Your task to perform on an android device: change text size in settings app Image 0: 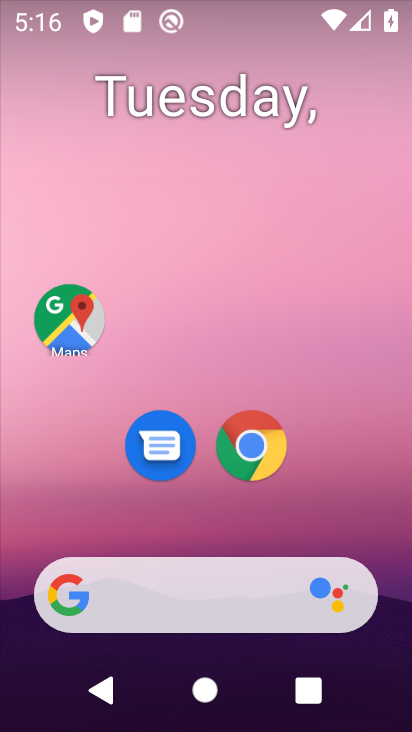
Step 0: drag from (315, 528) to (337, 5)
Your task to perform on an android device: change text size in settings app Image 1: 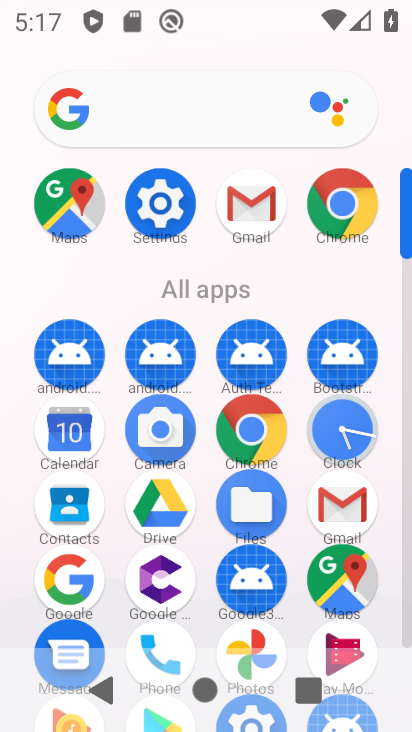
Step 1: click (158, 204)
Your task to perform on an android device: change text size in settings app Image 2: 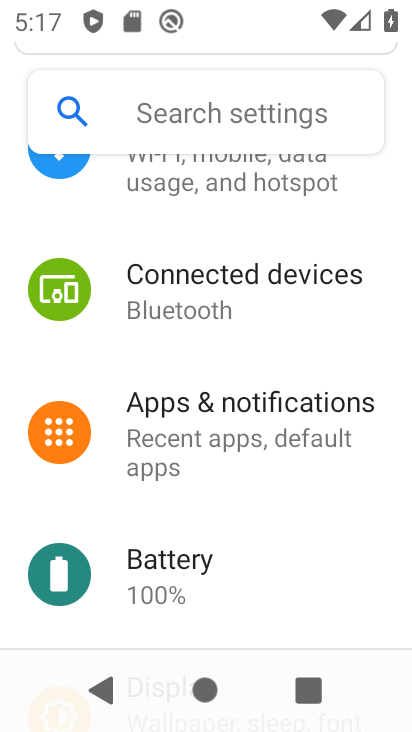
Step 2: drag from (379, 213) to (339, 546)
Your task to perform on an android device: change text size in settings app Image 3: 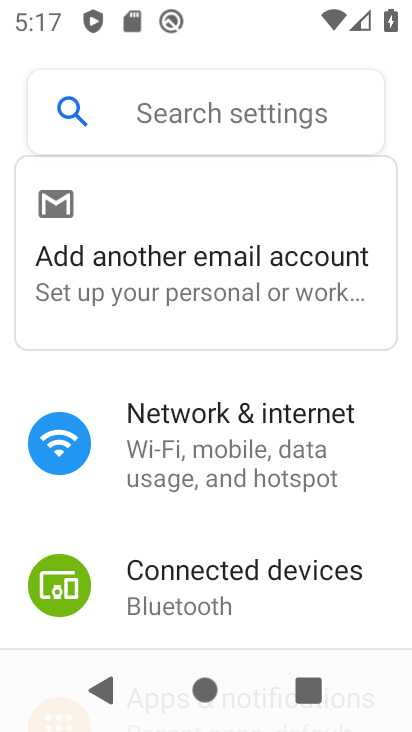
Step 3: drag from (289, 549) to (369, 247)
Your task to perform on an android device: change text size in settings app Image 4: 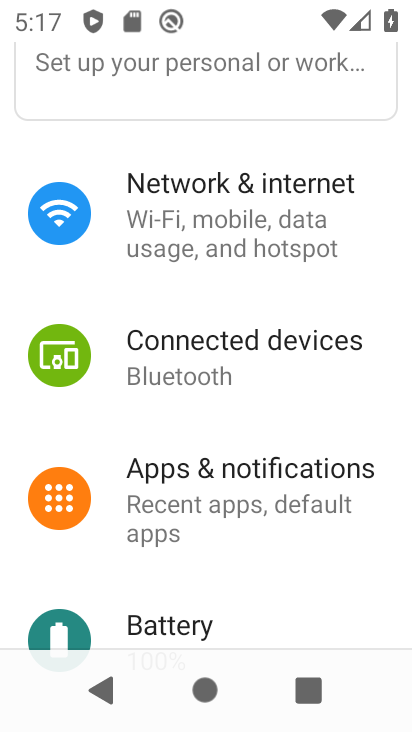
Step 4: drag from (378, 537) to (396, 316)
Your task to perform on an android device: change text size in settings app Image 5: 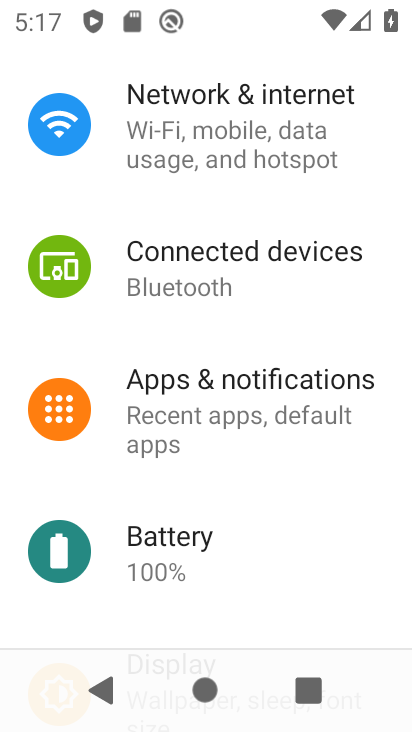
Step 5: drag from (341, 613) to (381, 333)
Your task to perform on an android device: change text size in settings app Image 6: 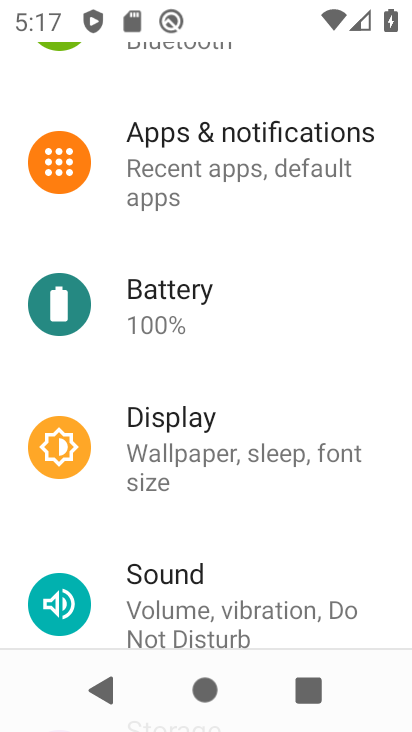
Step 6: click (195, 451)
Your task to perform on an android device: change text size in settings app Image 7: 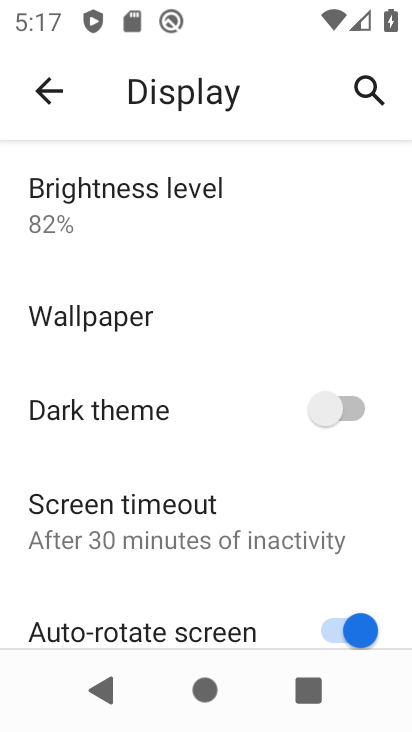
Step 7: drag from (228, 578) to (272, 292)
Your task to perform on an android device: change text size in settings app Image 8: 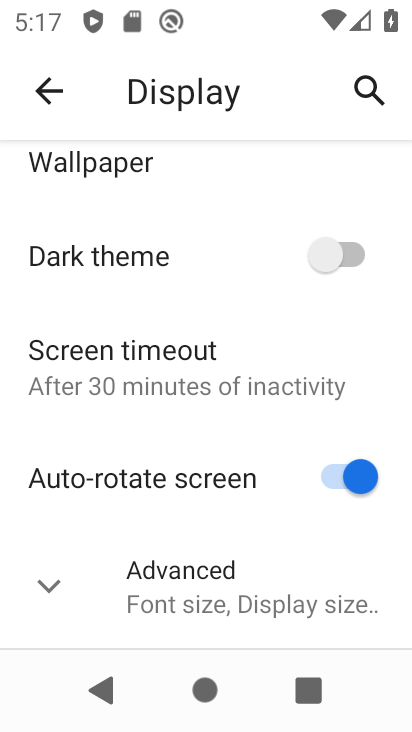
Step 8: click (193, 599)
Your task to perform on an android device: change text size in settings app Image 9: 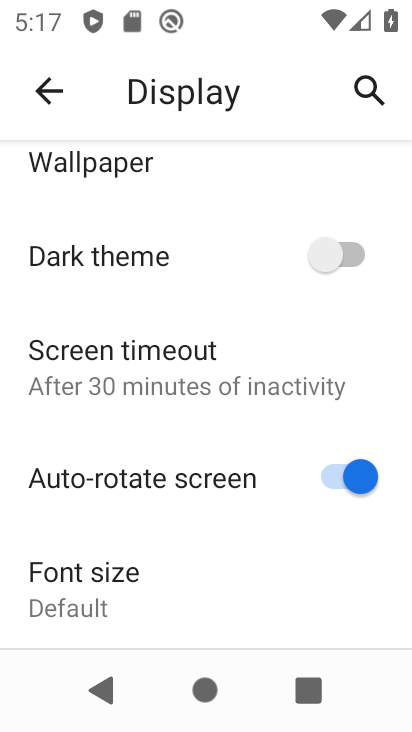
Step 9: click (63, 575)
Your task to perform on an android device: change text size in settings app Image 10: 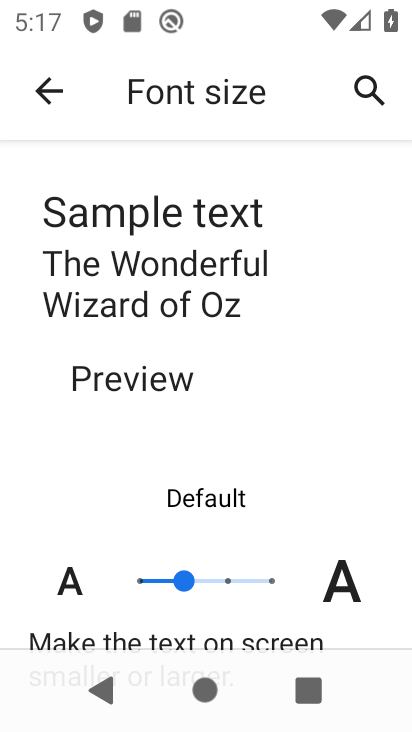
Step 10: click (229, 579)
Your task to perform on an android device: change text size in settings app Image 11: 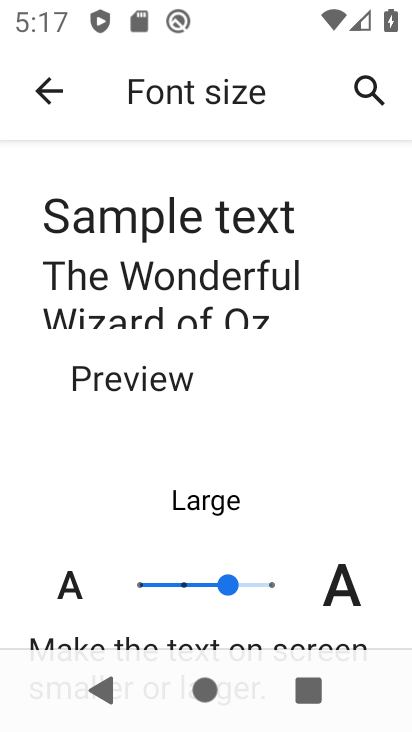
Step 11: task complete